Your task to perform on an android device: delete browsing data in the chrome app Image 0: 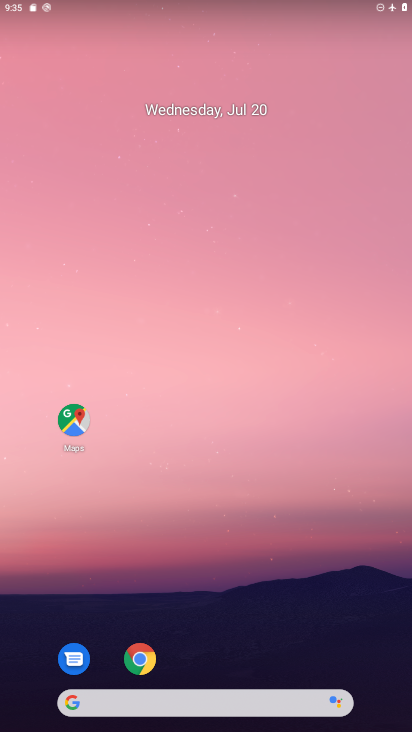
Step 0: drag from (207, 602) to (132, 104)
Your task to perform on an android device: delete browsing data in the chrome app Image 1: 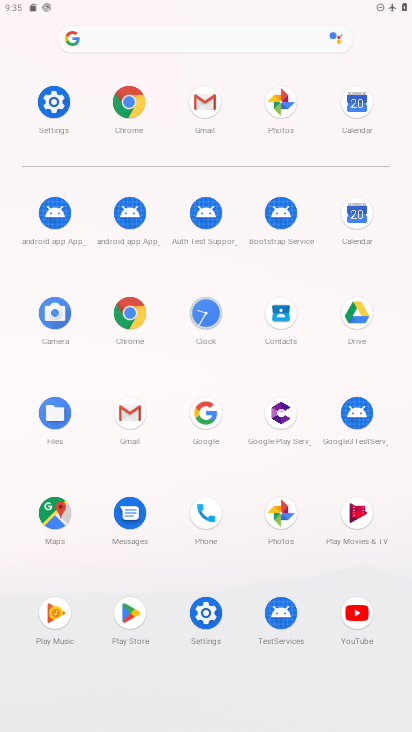
Step 1: click (116, 103)
Your task to perform on an android device: delete browsing data in the chrome app Image 2: 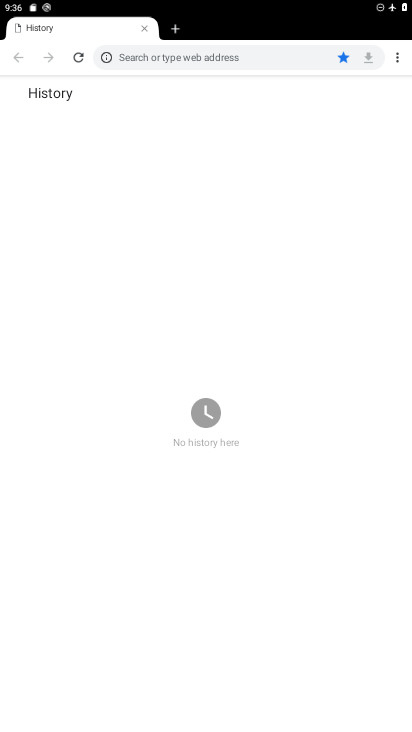
Step 2: task complete